Your task to perform on an android device: Open the Play Movies app and select the watchlist tab. Image 0: 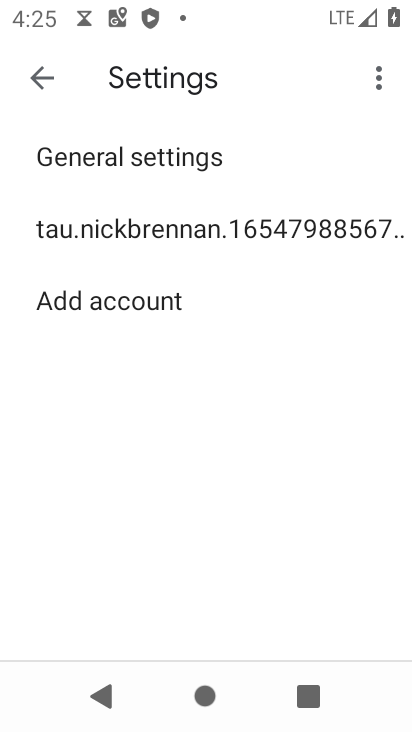
Step 0: press back button
Your task to perform on an android device: Open the Play Movies app and select the watchlist tab. Image 1: 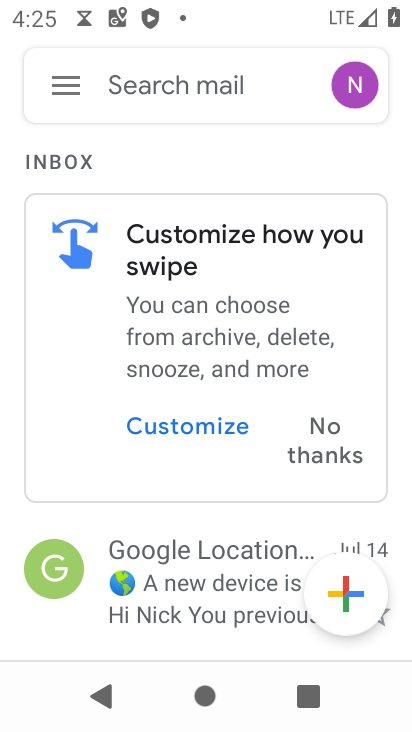
Step 1: press back button
Your task to perform on an android device: Open the Play Movies app and select the watchlist tab. Image 2: 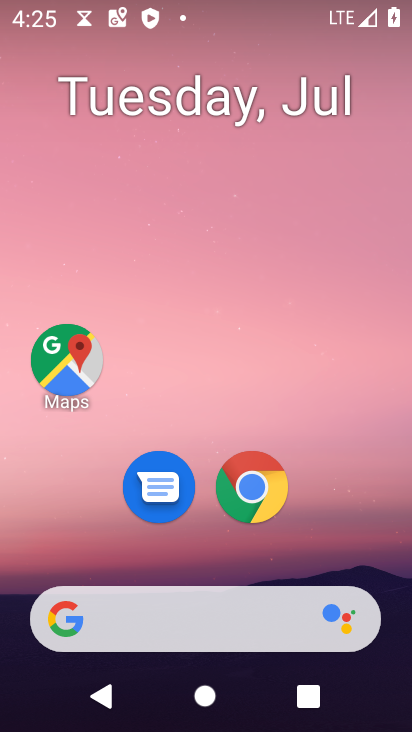
Step 2: drag from (143, 531) to (188, 20)
Your task to perform on an android device: Open the Play Movies app and select the watchlist tab. Image 3: 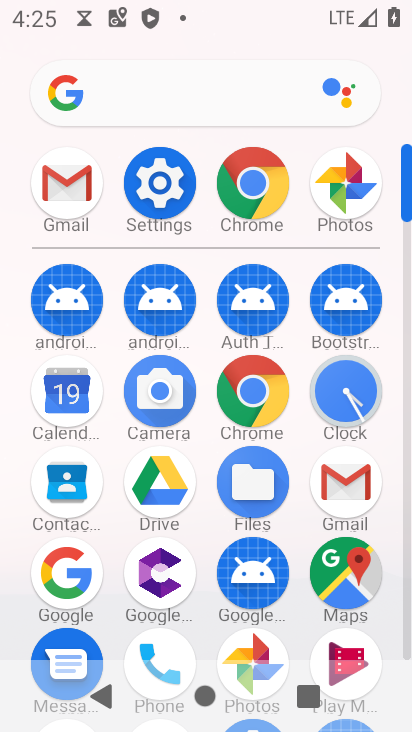
Step 3: click (346, 657)
Your task to perform on an android device: Open the Play Movies app and select the watchlist tab. Image 4: 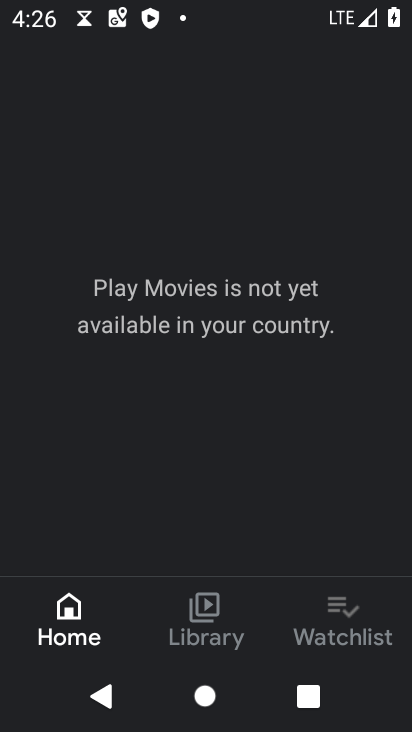
Step 4: click (338, 616)
Your task to perform on an android device: Open the Play Movies app and select the watchlist tab. Image 5: 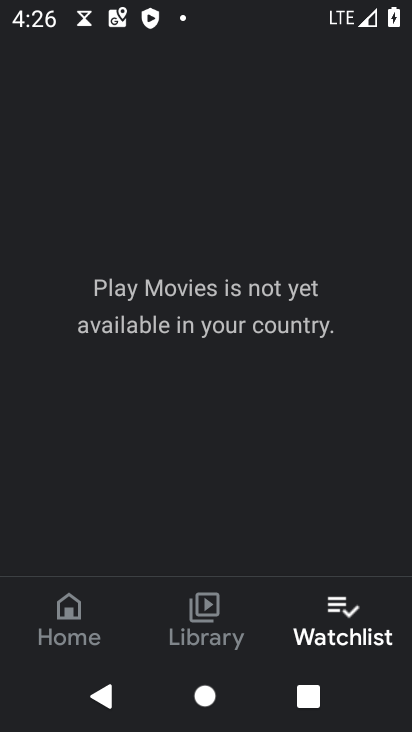
Step 5: task complete